Your task to perform on an android device: Is it going to rain tomorrow? Image 0: 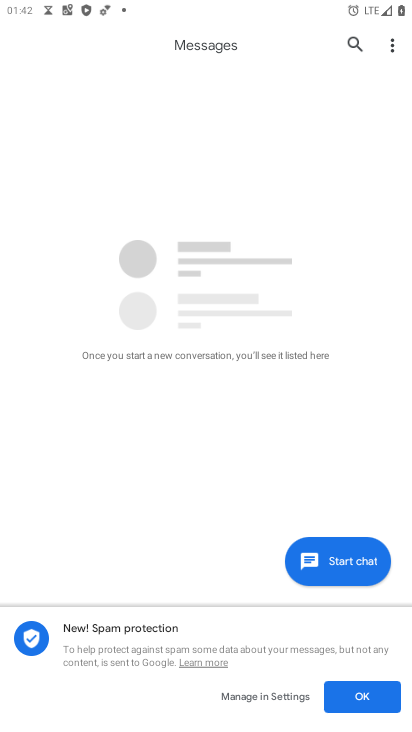
Step 0: press home button
Your task to perform on an android device: Is it going to rain tomorrow? Image 1: 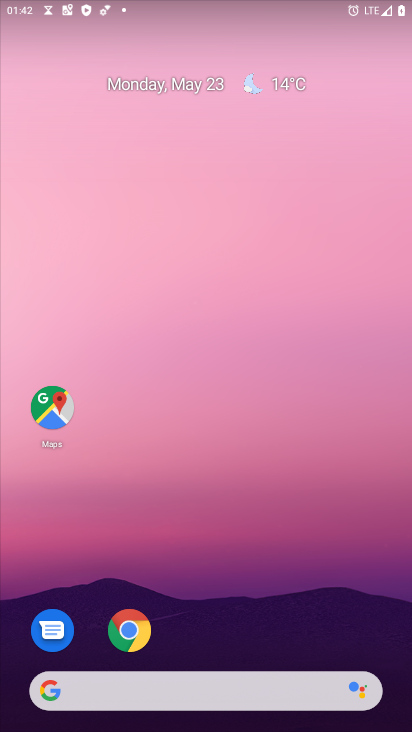
Step 1: click (282, 83)
Your task to perform on an android device: Is it going to rain tomorrow? Image 2: 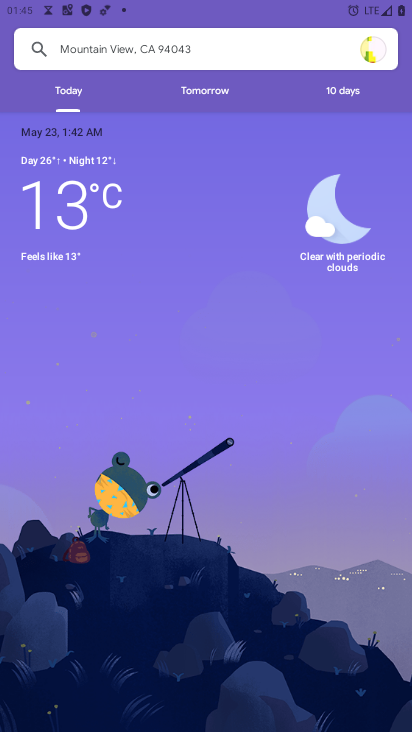
Step 2: click (201, 91)
Your task to perform on an android device: Is it going to rain tomorrow? Image 3: 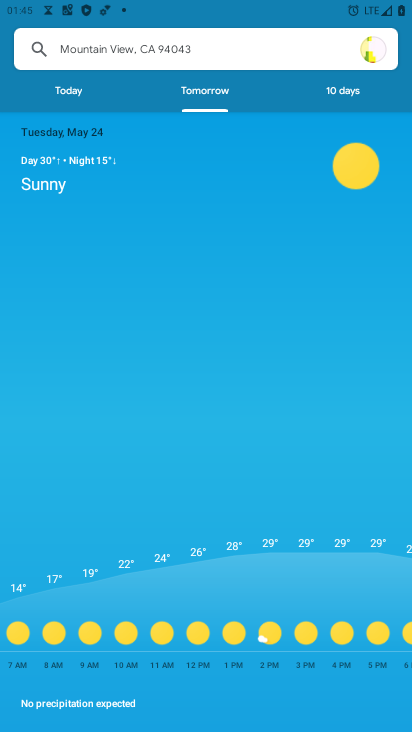
Step 3: task complete